Your task to perform on an android device: turn off wifi Image 0: 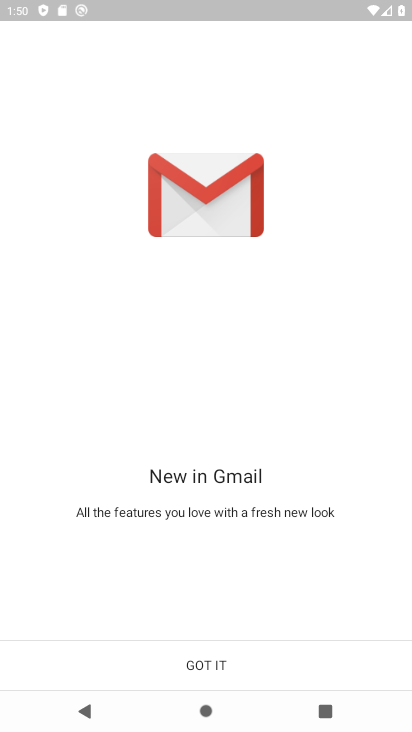
Step 0: press home button
Your task to perform on an android device: turn off wifi Image 1: 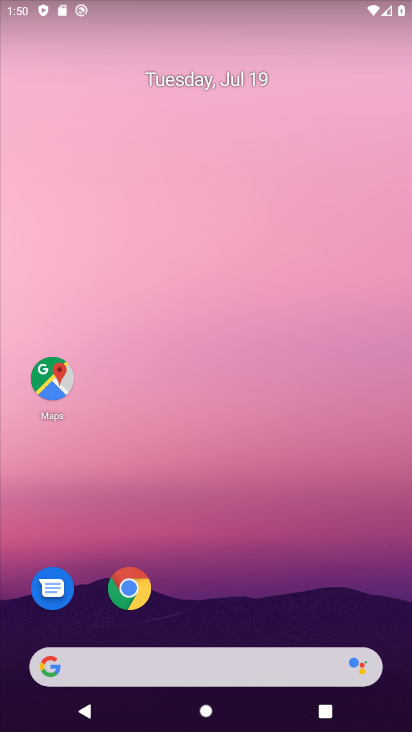
Step 1: drag from (248, 564) to (189, 150)
Your task to perform on an android device: turn off wifi Image 2: 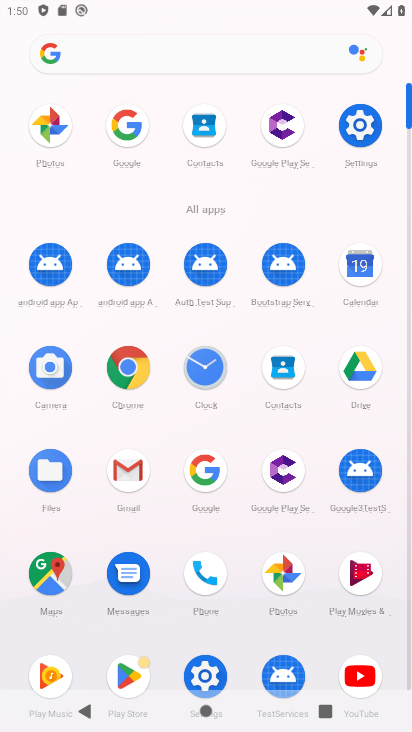
Step 2: click (361, 117)
Your task to perform on an android device: turn off wifi Image 3: 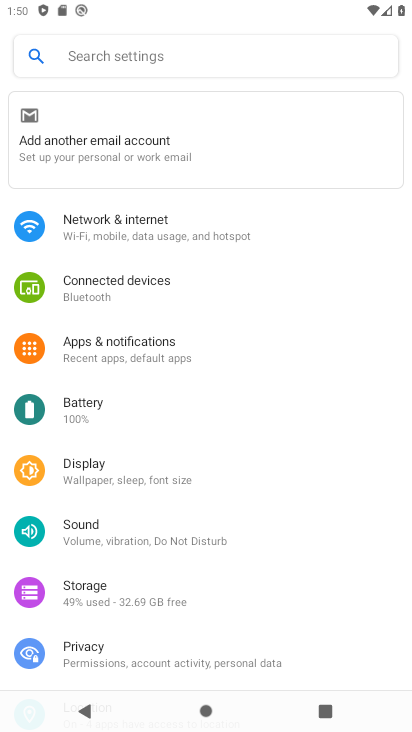
Step 3: click (119, 214)
Your task to perform on an android device: turn off wifi Image 4: 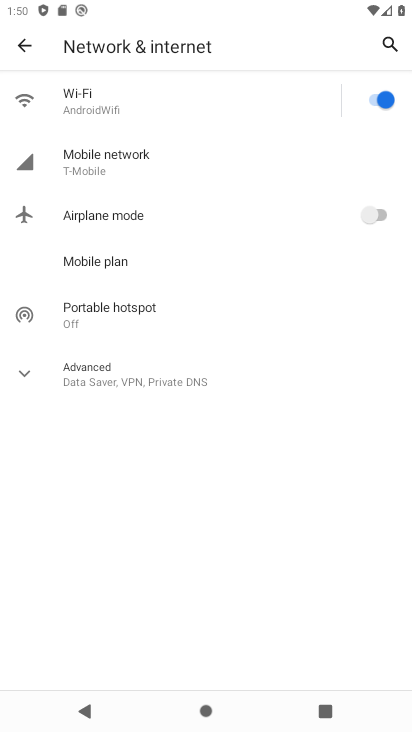
Step 4: click (396, 96)
Your task to perform on an android device: turn off wifi Image 5: 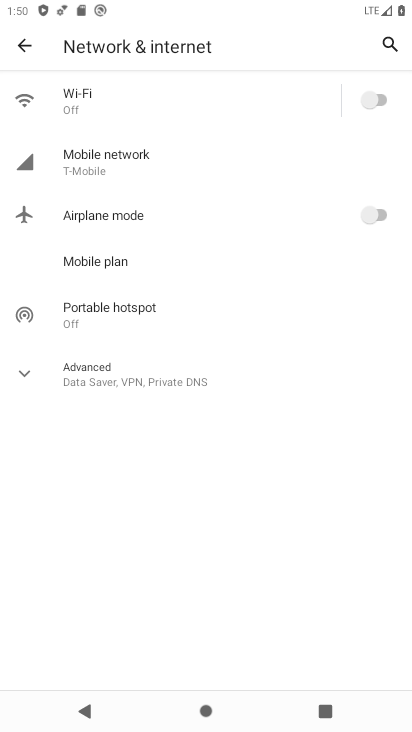
Step 5: task complete